Your task to perform on an android device: check data usage Image 0: 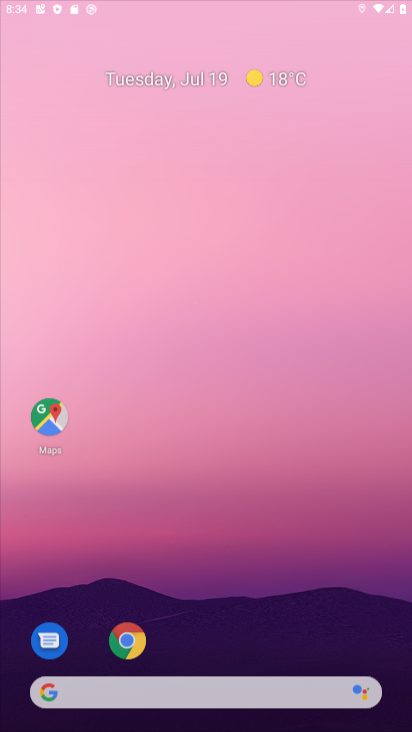
Step 0: click (124, 633)
Your task to perform on an android device: check data usage Image 1: 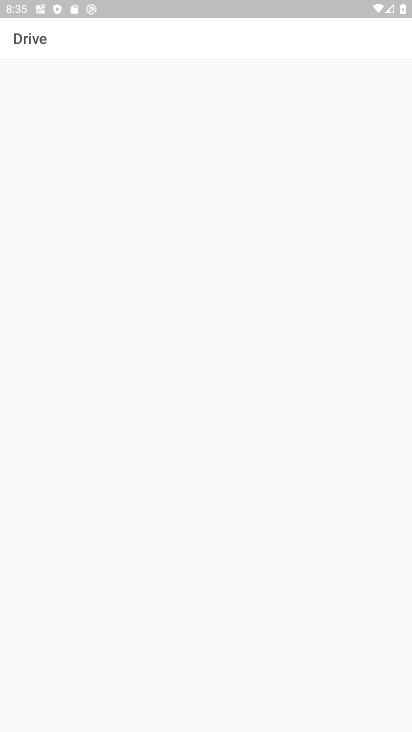
Step 1: click (124, 634)
Your task to perform on an android device: check data usage Image 2: 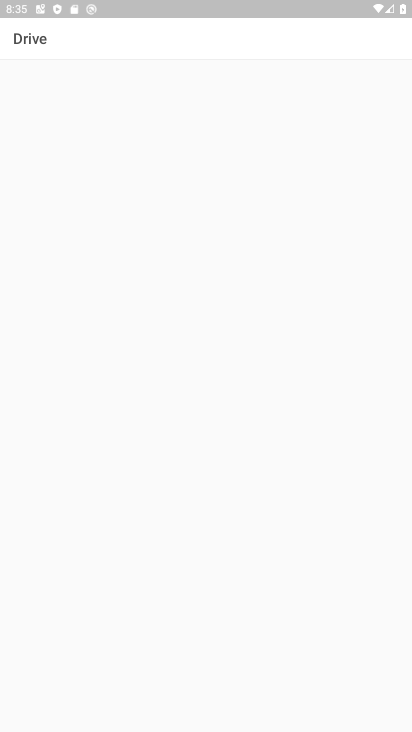
Step 2: press home button
Your task to perform on an android device: check data usage Image 3: 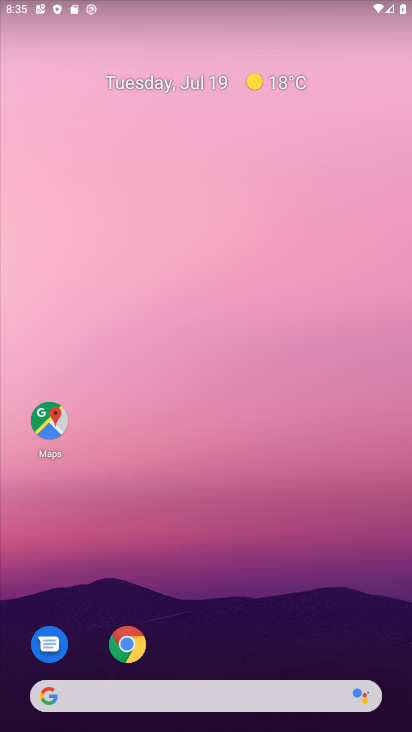
Step 3: drag from (213, 646) to (173, 119)
Your task to perform on an android device: check data usage Image 4: 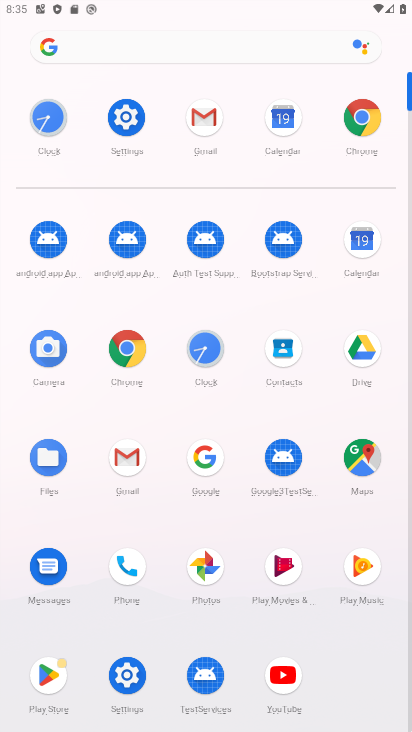
Step 4: click (128, 112)
Your task to perform on an android device: check data usage Image 5: 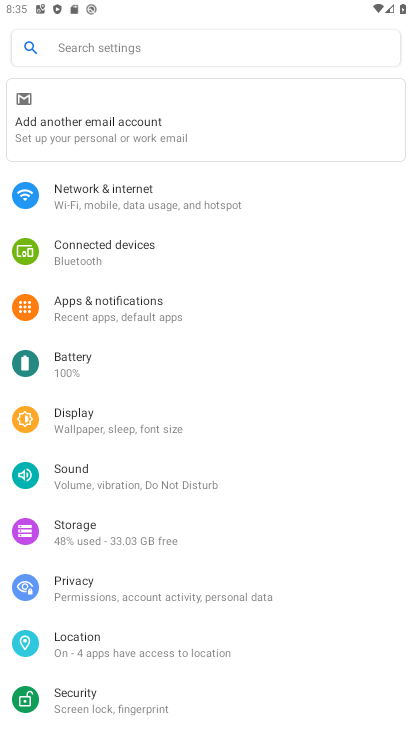
Step 5: click (97, 197)
Your task to perform on an android device: check data usage Image 6: 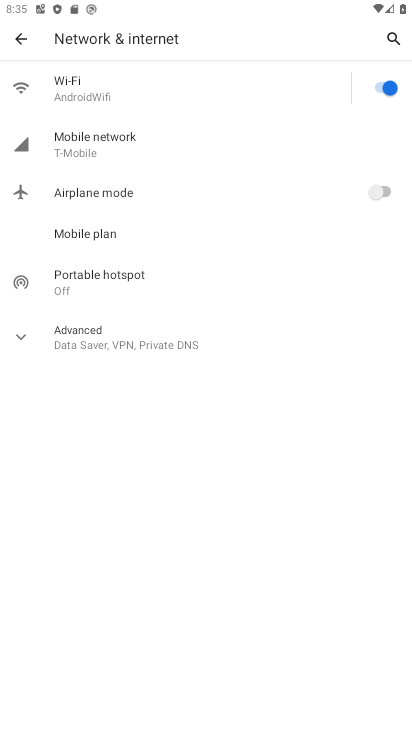
Step 6: click (107, 143)
Your task to perform on an android device: check data usage Image 7: 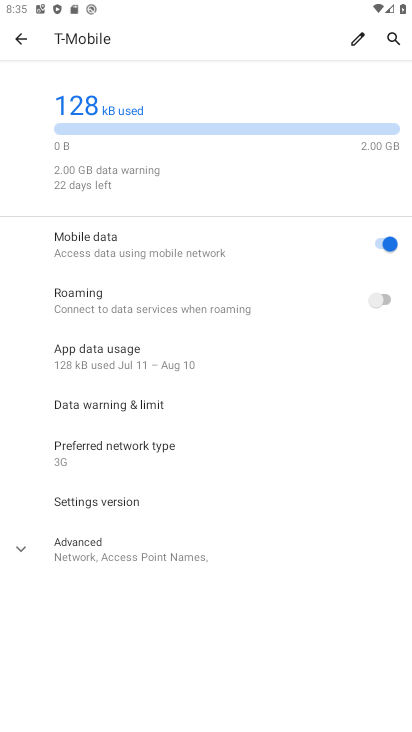
Step 7: click (111, 356)
Your task to perform on an android device: check data usage Image 8: 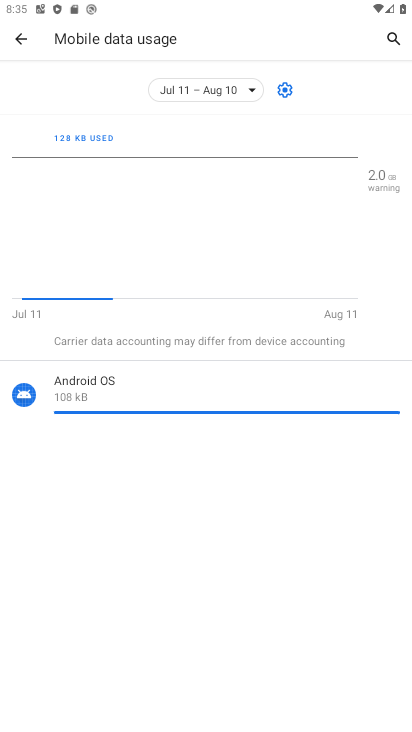
Step 8: task complete